Your task to perform on an android device: change your default location settings in chrome Image 0: 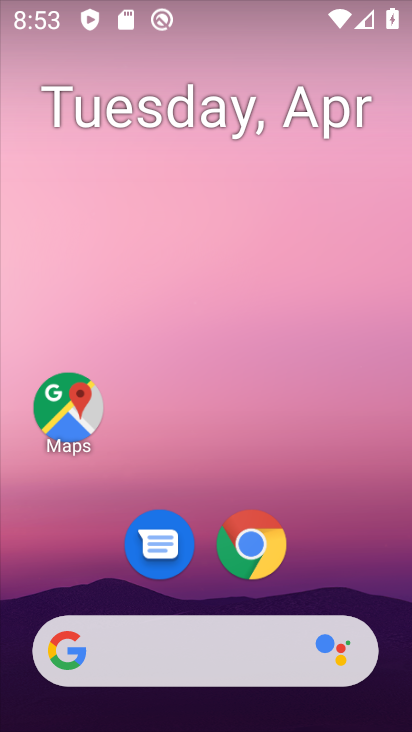
Step 0: click (254, 555)
Your task to perform on an android device: change your default location settings in chrome Image 1: 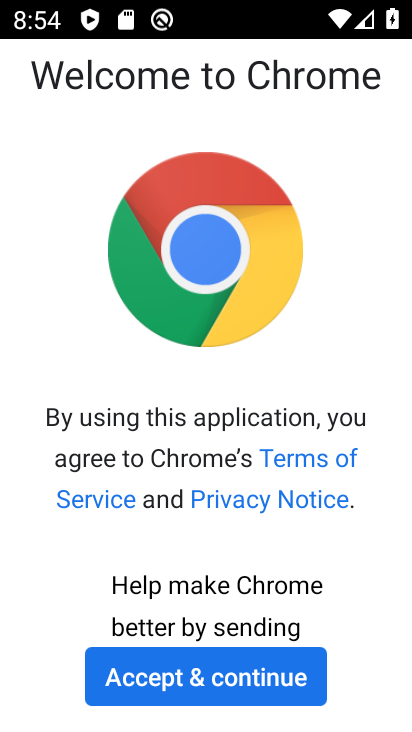
Step 1: click (177, 673)
Your task to perform on an android device: change your default location settings in chrome Image 2: 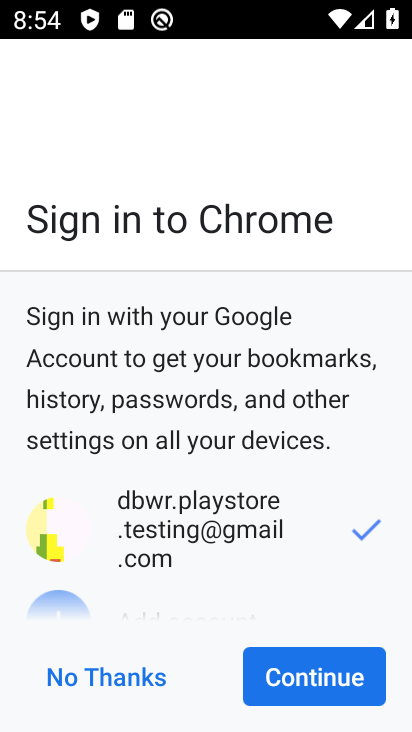
Step 2: click (287, 690)
Your task to perform on an android device: change your default location settings in chrome Image 3: 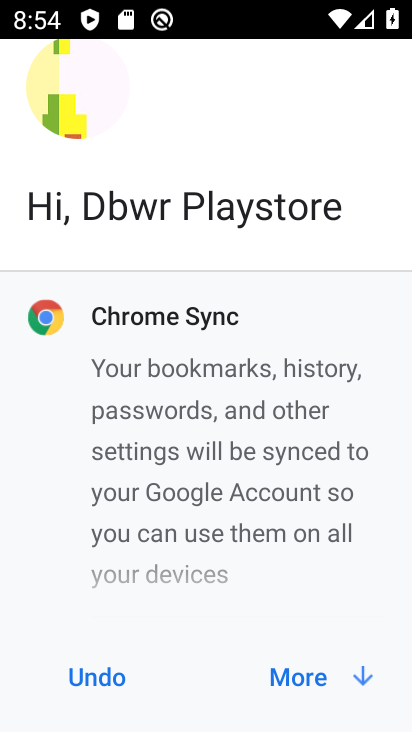
Step 3: click (287, 688)
Your task to perform on an android device: change your default location settings in chrome Image 4: 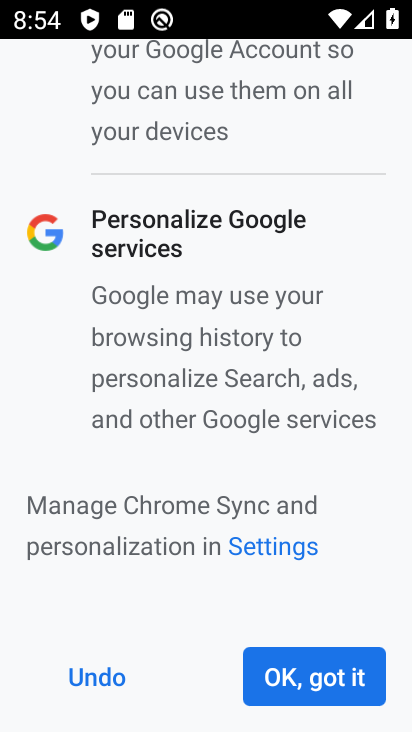
Step 4: click (285, 685)
Your task to perform on an android device: change your default location settings in chrome Image 5: 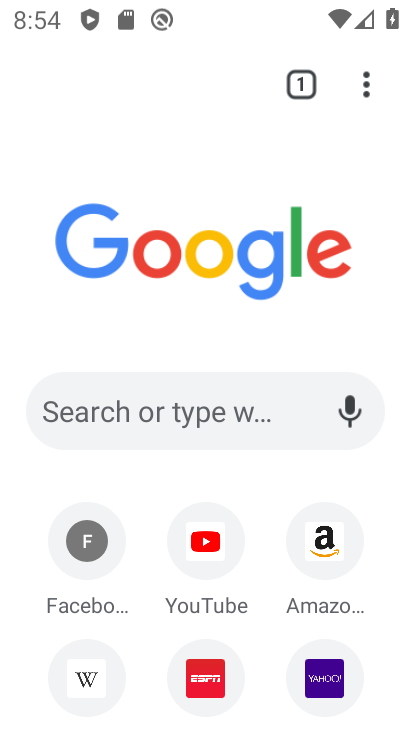
Step 5: drag from (368, 92) to (196, 608)
Your task to perform on an android device: change your default location settings in chrome Image 6: 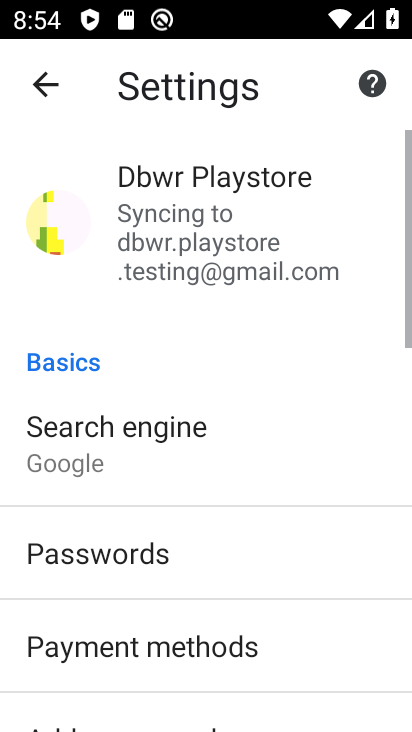
Step 6: drag from (192, 603) to (186, 160)
Your task to perform on an android device: change your default location settings in chrome Image 7: 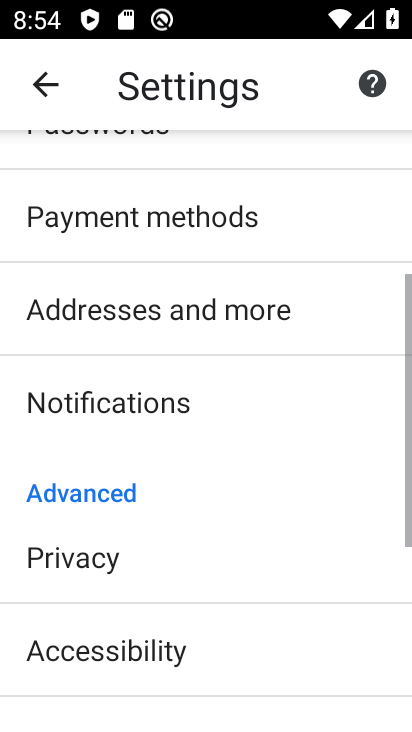
Step 7: drag from (184, 630) to (205, 267)
Your task to perform on an android device: change your default location settings in chrome Image 8: 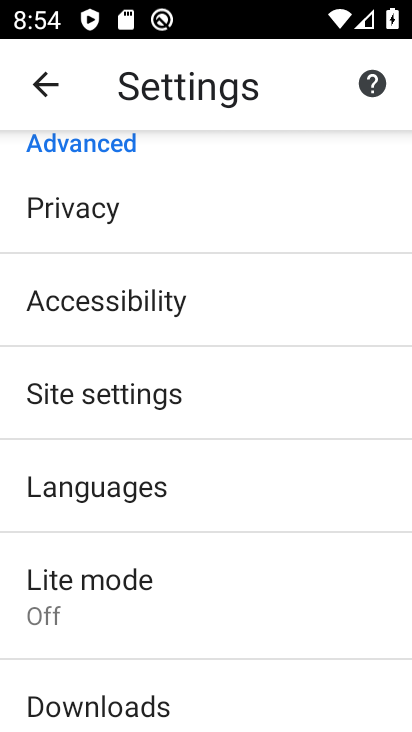
Step 8: click (137, 407)
Your task to perform on an android device: change your default location settings in chrome Image 9: 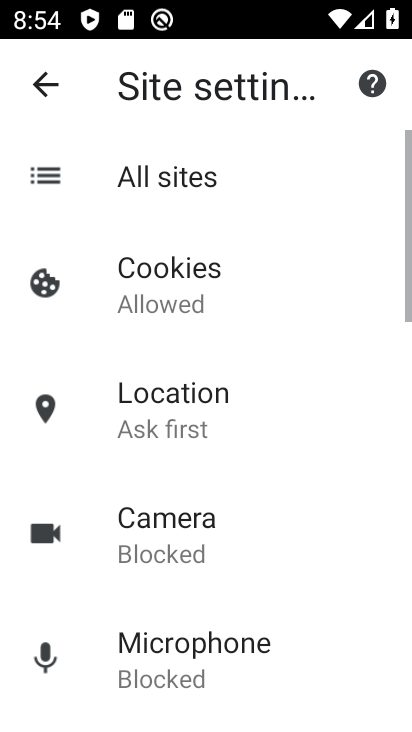
Step 9: click (195, 416)
Your task to perform on an android device: change your default location settings in chrome Image 10: 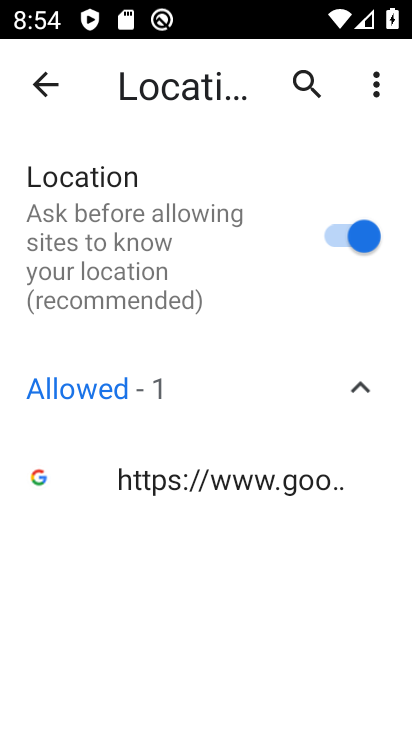
Step 10: click (377, 228)
Your task to perform on an android device: change your default location settings in chrome Image 11: 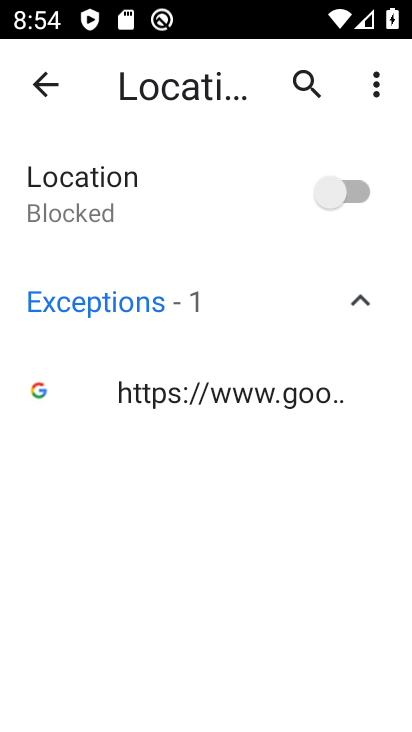
Step 11: task complete